Your task to perform on an android device: open a new tab in the chrome app Image 0: 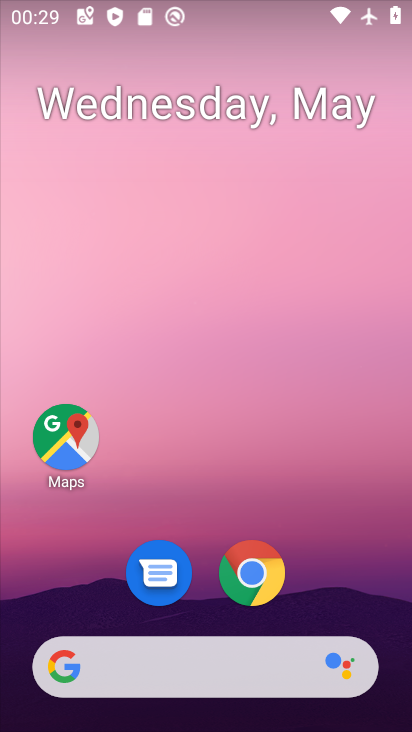
Step 0: click (270, 562)
Your task to perform on an android device: open a new tab in the chrome app Image 1: 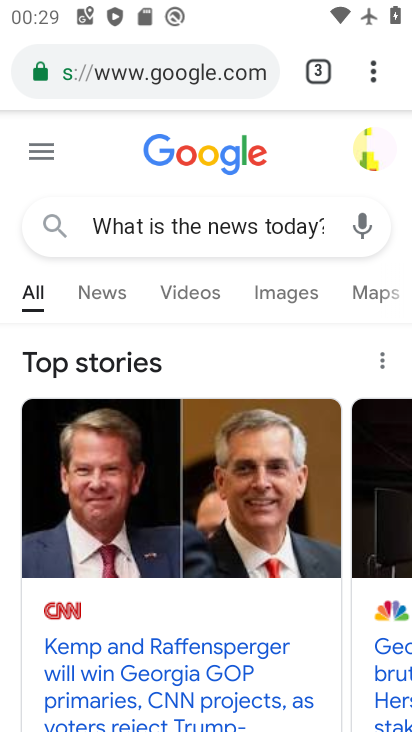
Step 1: click (370, 62)
Your task to perform on an android device: open a new tab in the chrome app Image 2: 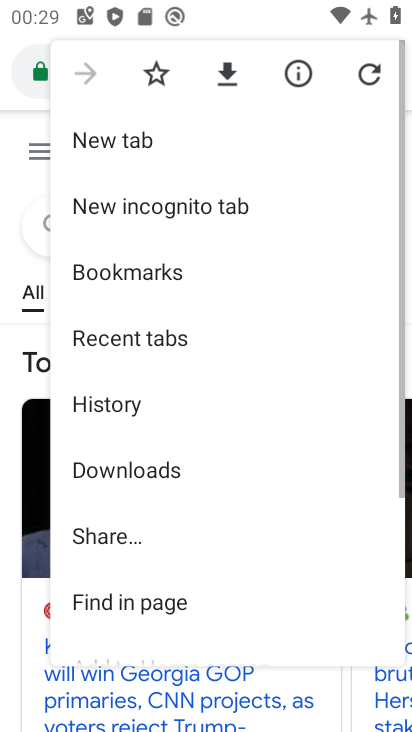
Step 2: click (138, 125)
Your task to perform on an android device: open a new tab in the chrome app Image 3: 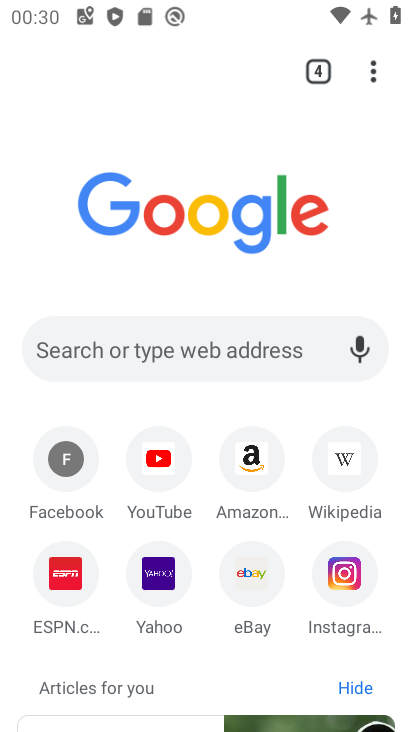
Step 3: task complete